Your task to perform on an android device: choose inbox layout in the gmail app Image 0: 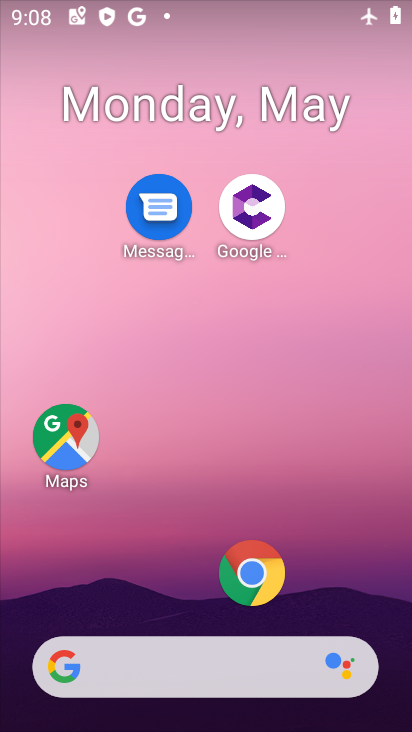
Step 0: drag from (206, 620) to (221, 111)
Your task to perform on an android device: choose inbox layout in the gmail app Image 1: 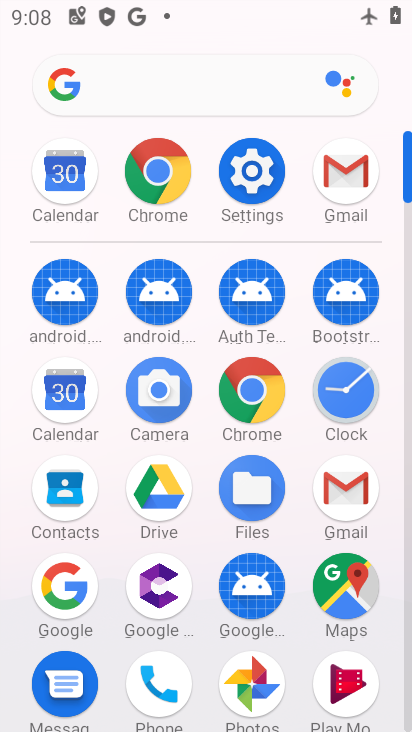
Step 1: click (362, 509)
Your task to perform on an android device: choose inbox layout in the gmail app Image 2: 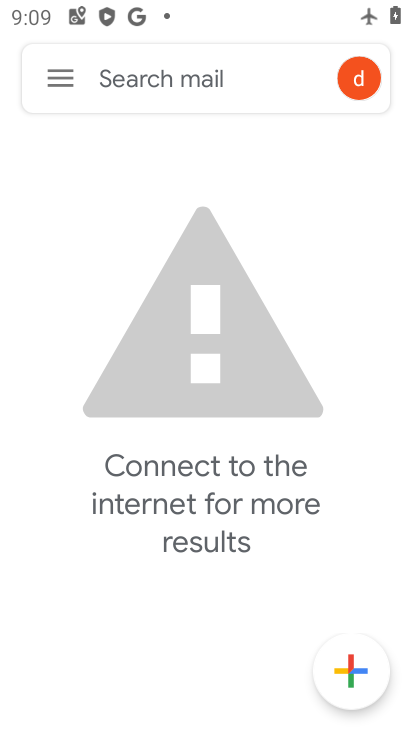
Step 2: click (57, 76)
Your task to perform on an android device: choose inbox layout in the gmail app Image 3: 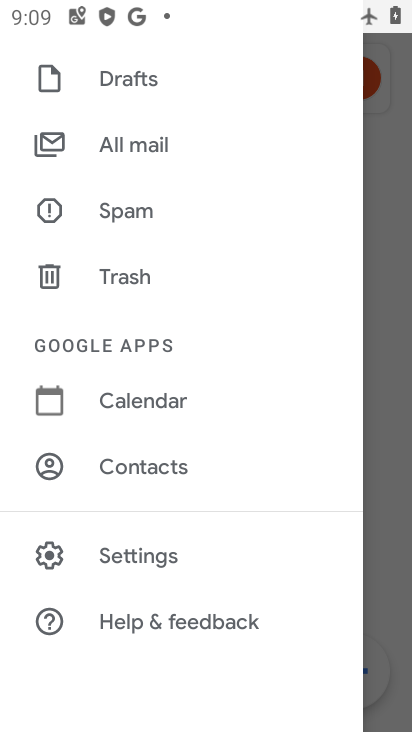
Step 3: click (155, 559)
Your task to perform on an android device: choose inbox layout in the gmail app Image 4: 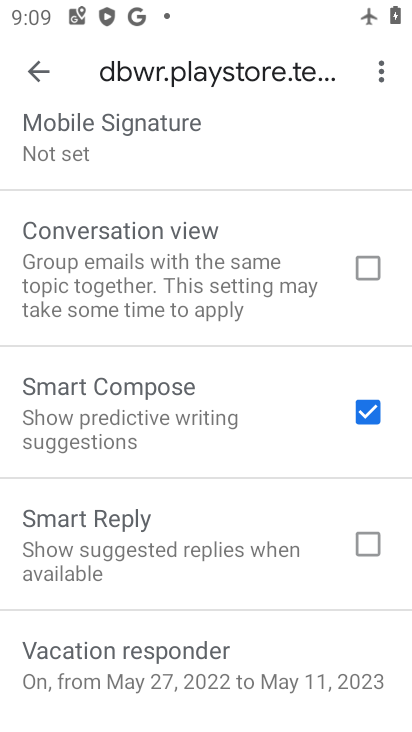
Step 4: task complete